Your task to perform on an android device: What's the weather? Image 0: 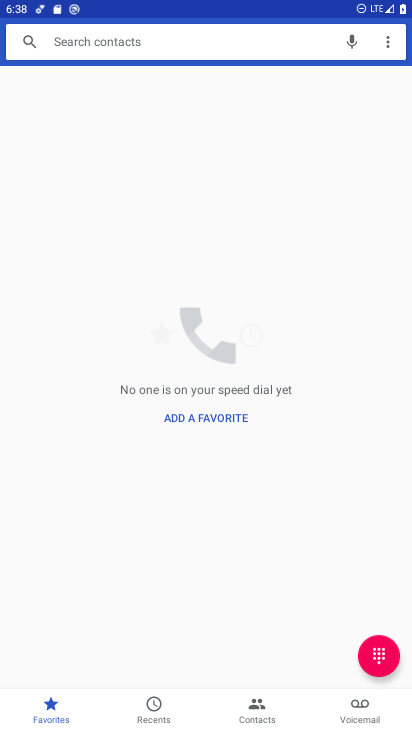
Step 0: press home button
Your task to perform on an android device: What's the weather? Image 1: 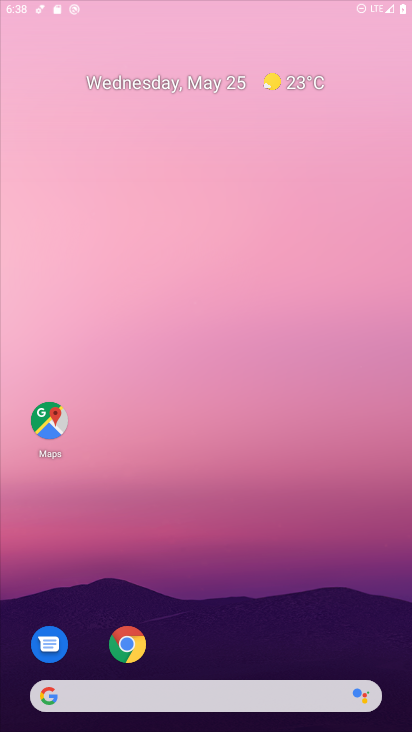
Step 1: drag from (374, 655) to (317, 18)
Your task to perform on an android device: What's the weather? Image 2: 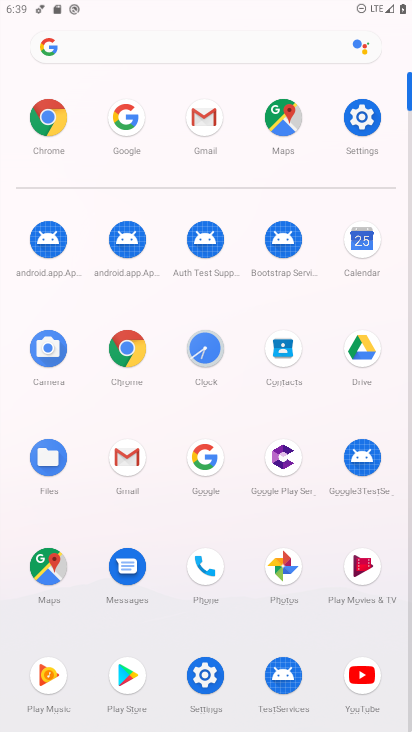
Step 2: click (210, 457)
Your task to perform on an android device: What's the weather? Image 3: 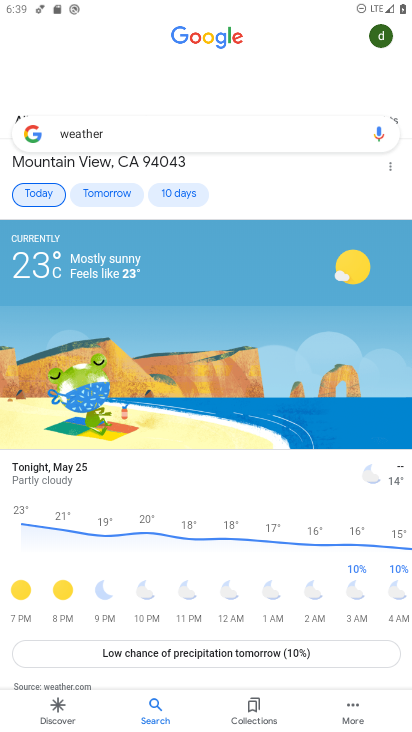
Step 3: task complete